Your task to perform on an android device: Open the phone app and click the voicemail tab. Image 0: 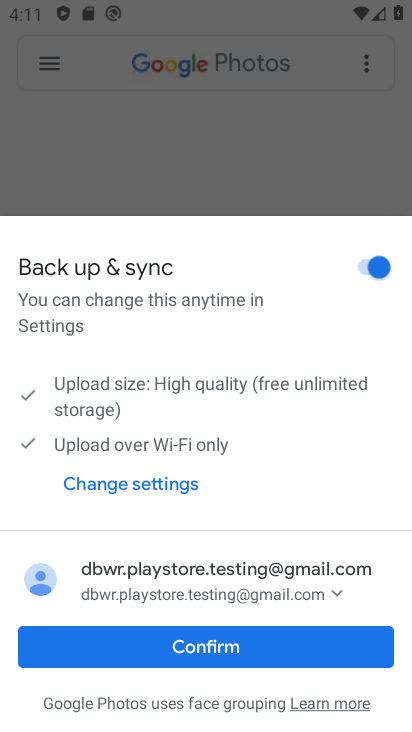
Step 0: press home button
Your task to perform on an android device: Open the phone app and click the voicemail tab. Image 1: 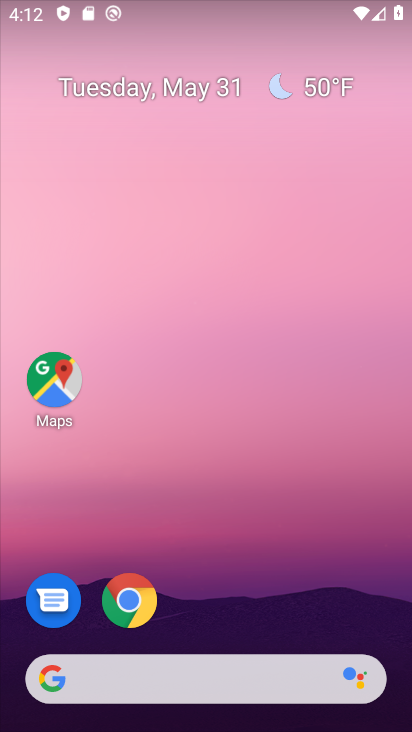
Step 1: drag from (270, 604) to (208, 139)
Your task to perform on an android device: Open the phone app and click the voicemail tab. Image 2: 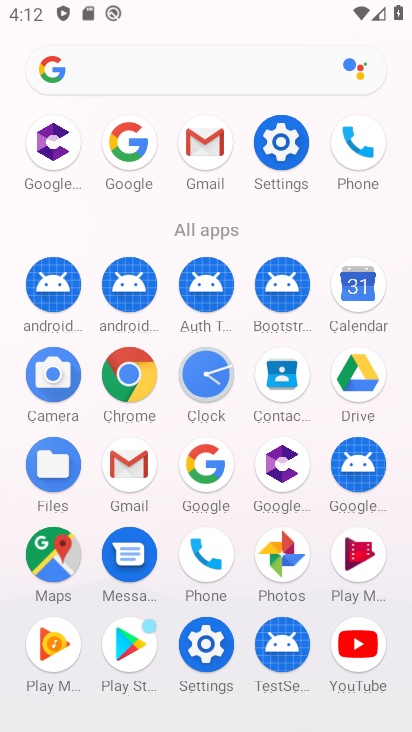
Step 2: click (351, 144)
Your task to perform on an android device: Open the phone app and click the voicemail tab. Image 3: 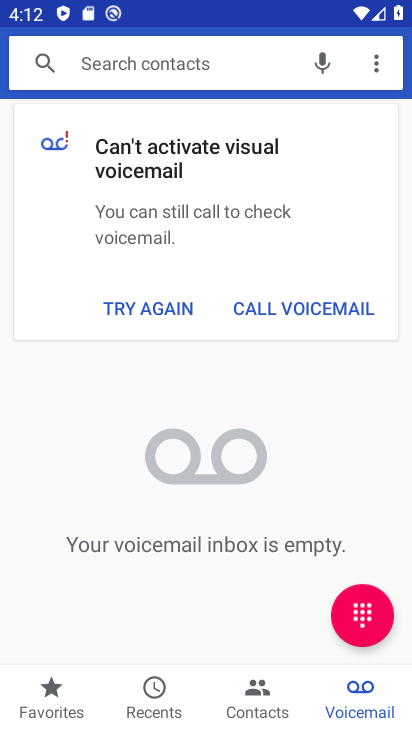
Step 3: click (369, 697)
Your task to perform on an android device: Open the phone app and click the voicemail tab. Image 4: 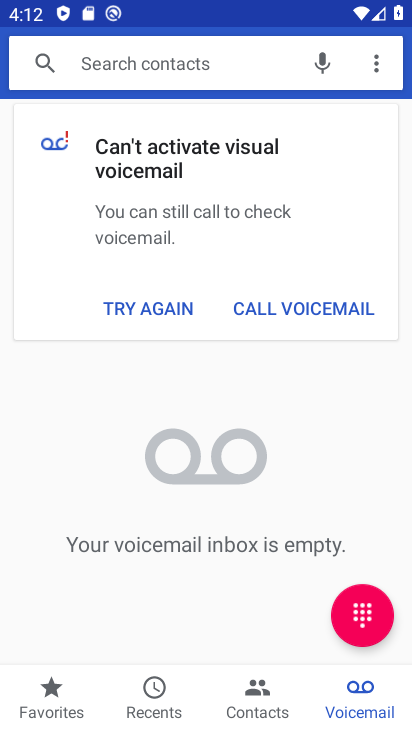
Step 4: task complete